Your task to perform on an android device: Search for seafood restaurants on Google Maps Image 0: 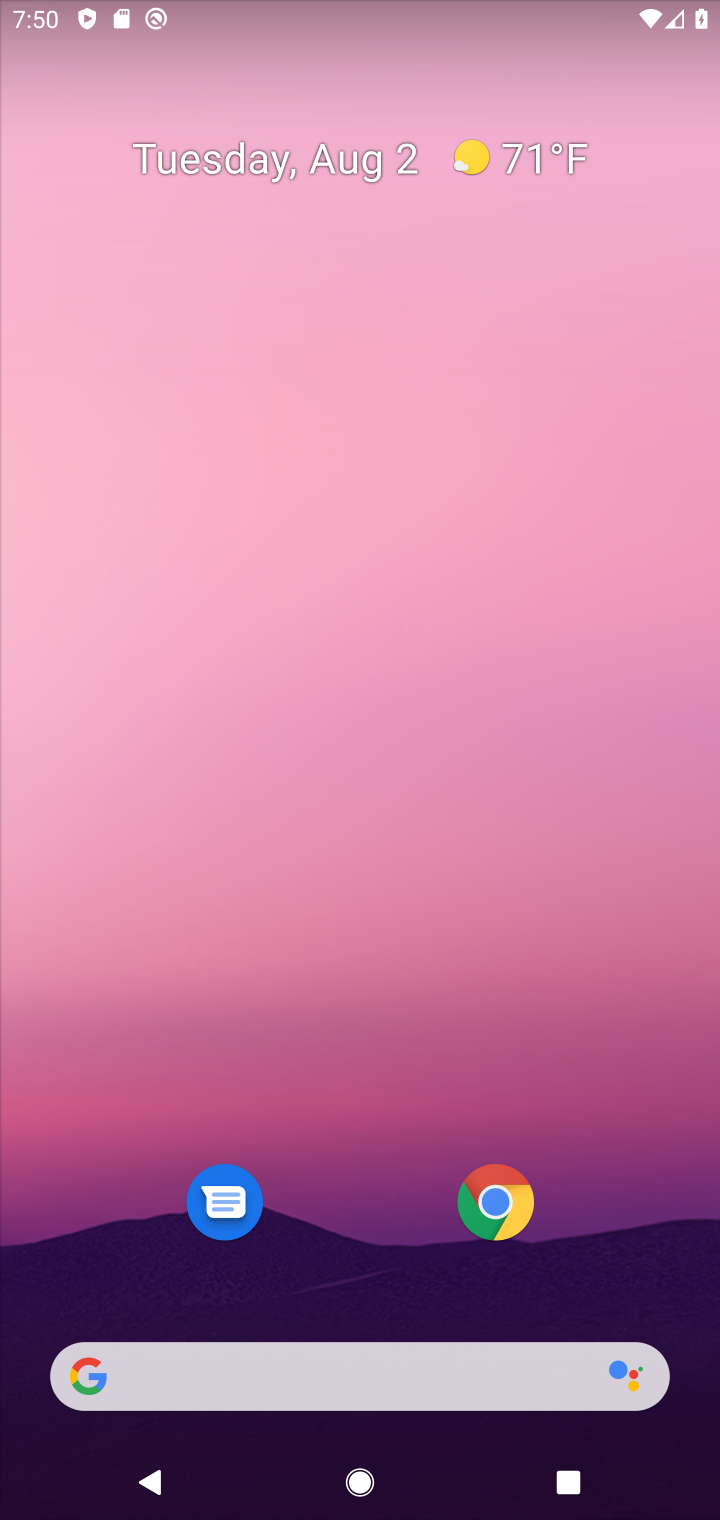
Step 0: drag from (379, 1179) to (379, 0)
Your task to perform on an android device: Search for seafood restaurants on Google Maps Image 1: 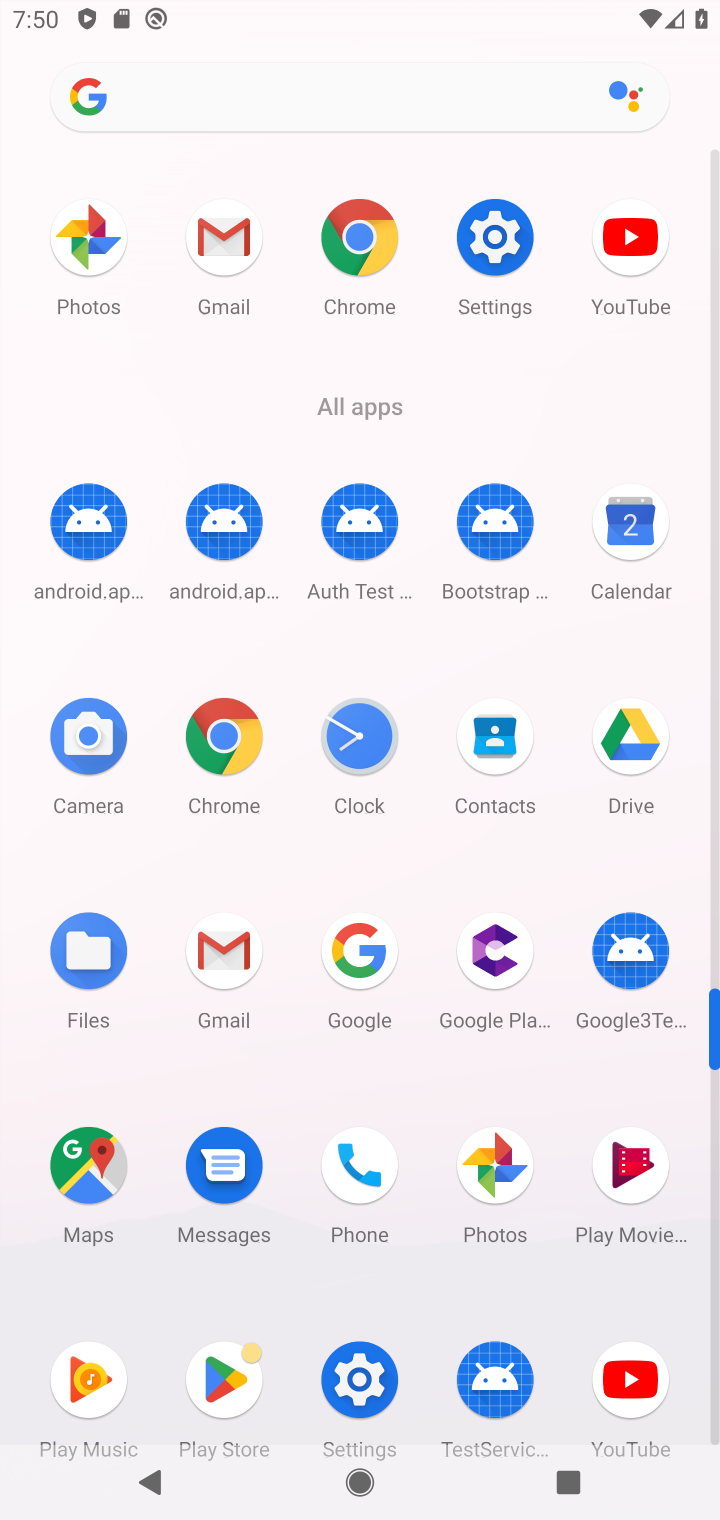
Step 1: click (85, 1171)
Your task to perform on an android device: Search for seafood restaurants on Google Maps Image 2: 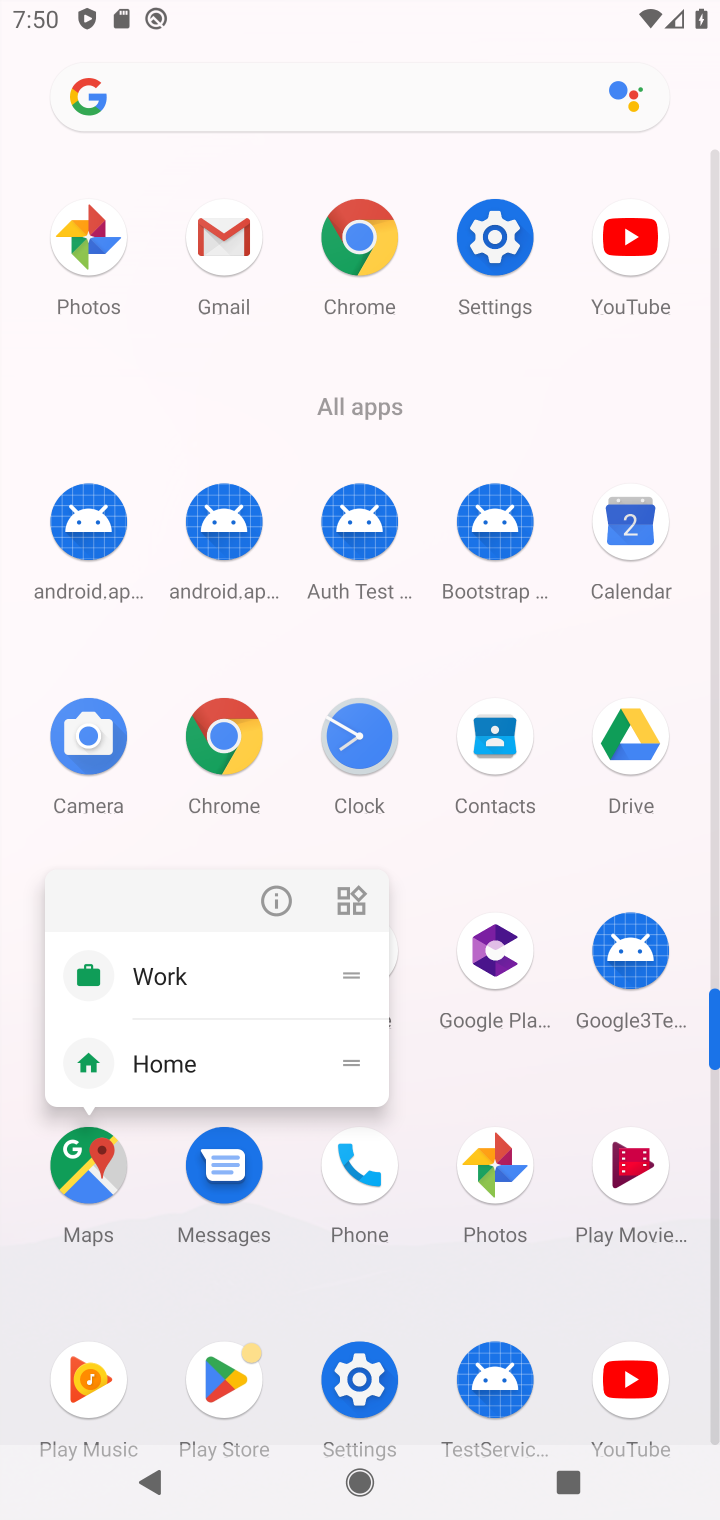
Step 2: click (79, 1181)
Your task to perform on an android device: Search for seafood restaurants on Google Maps Image 3: 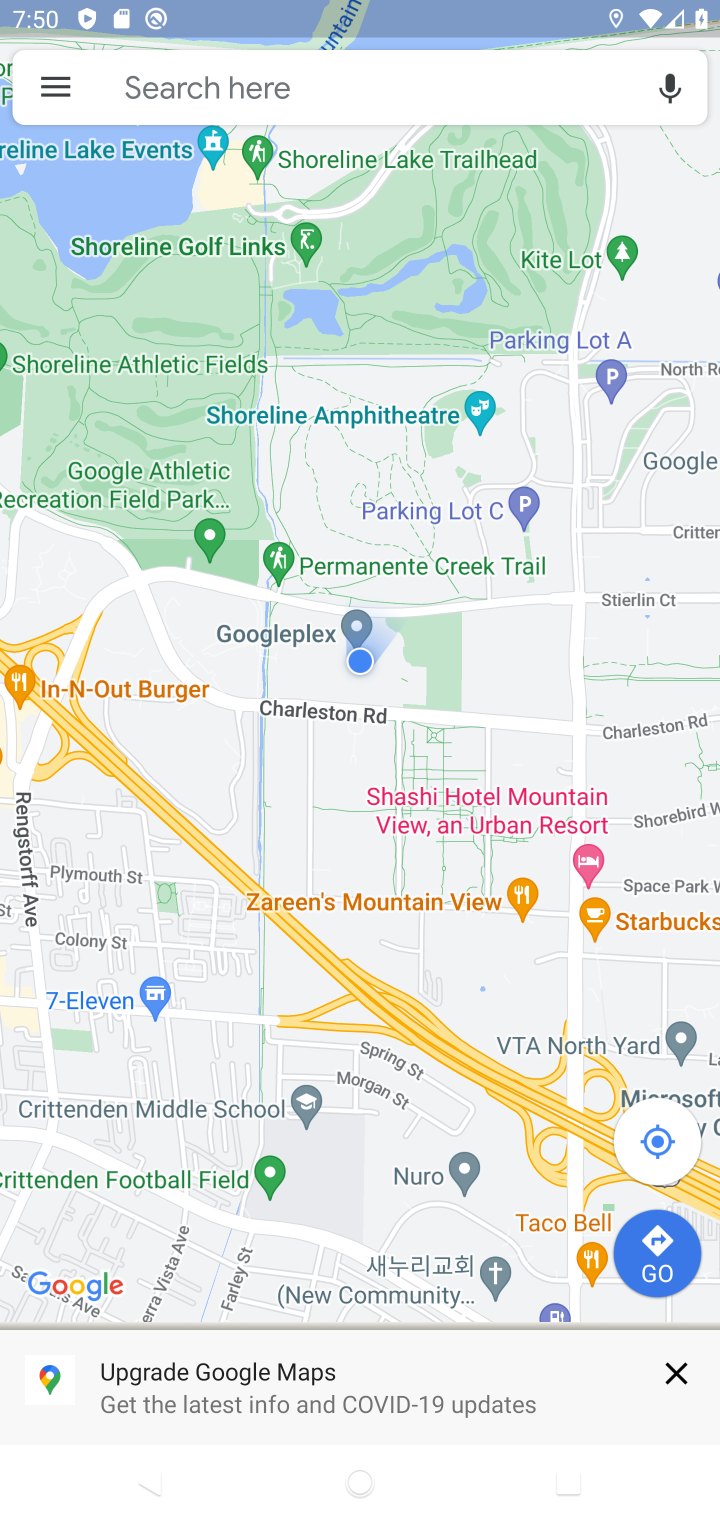
Step 3: click (208, 84)
Your task to perform on an android device: Search for seafood restaurants on Google Maps Image 4: 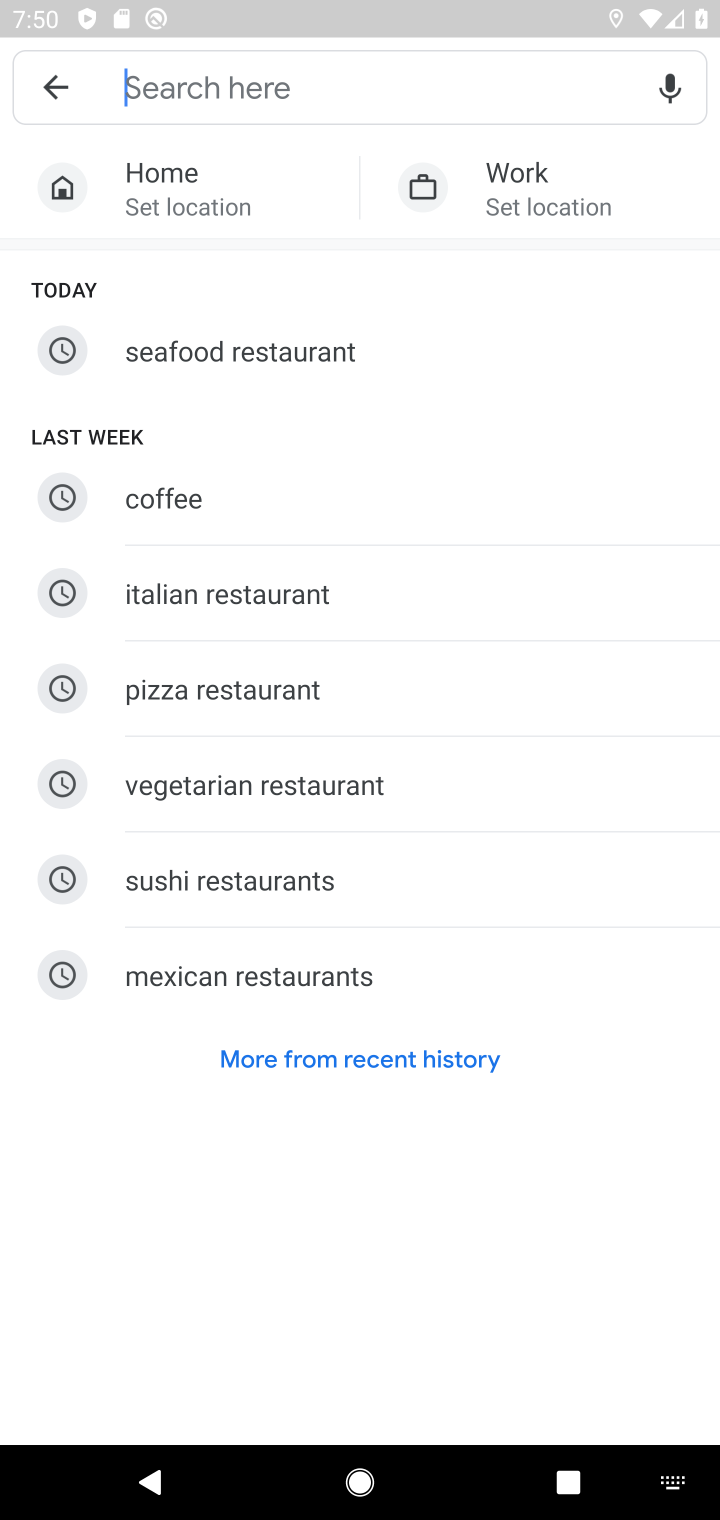
Step 4: type "seafood restaurants"
Your task to perform on an android device: Search for seafood restaurants on Google Maps Image 5: 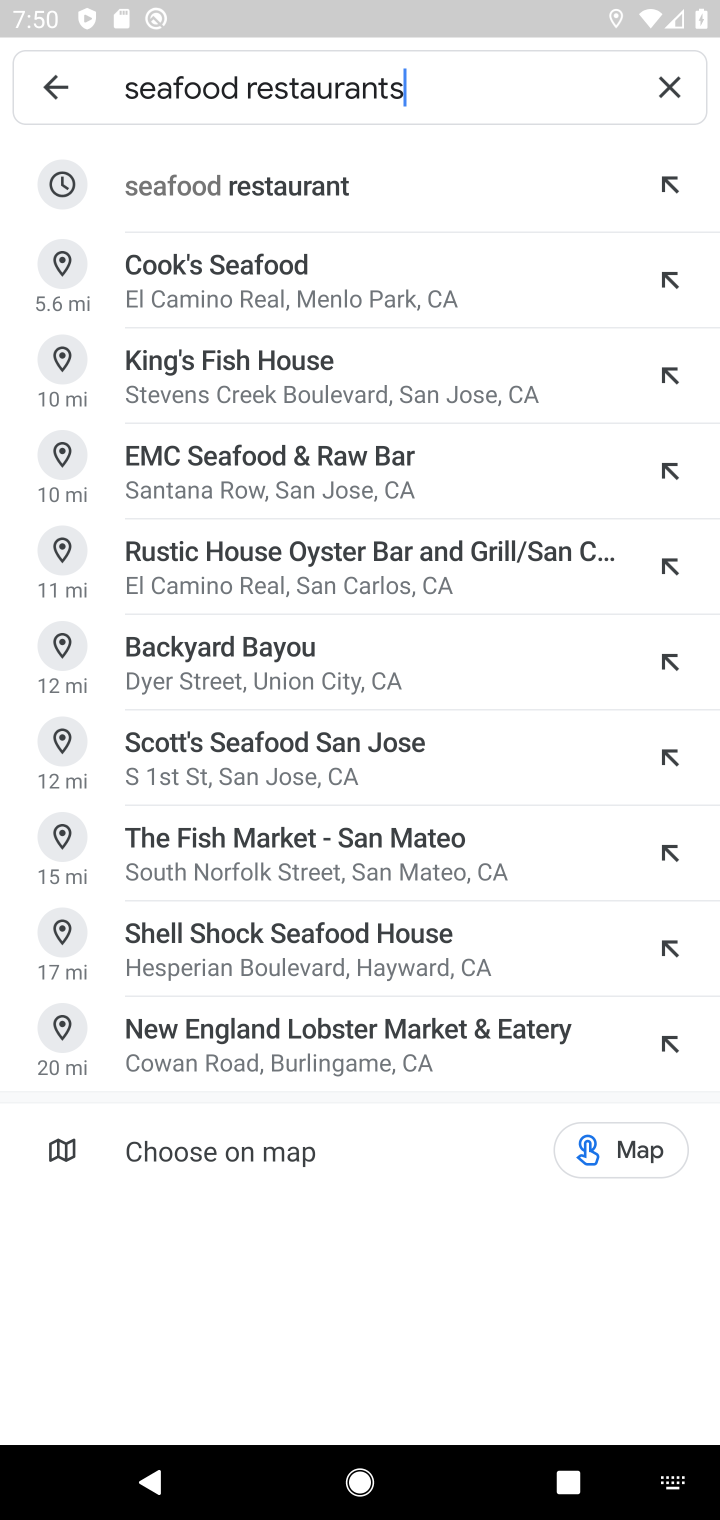
Step 5: click (222, 190)
Your task to perform on an android device: Search for seafood restaurants on Google Maps Image 6: 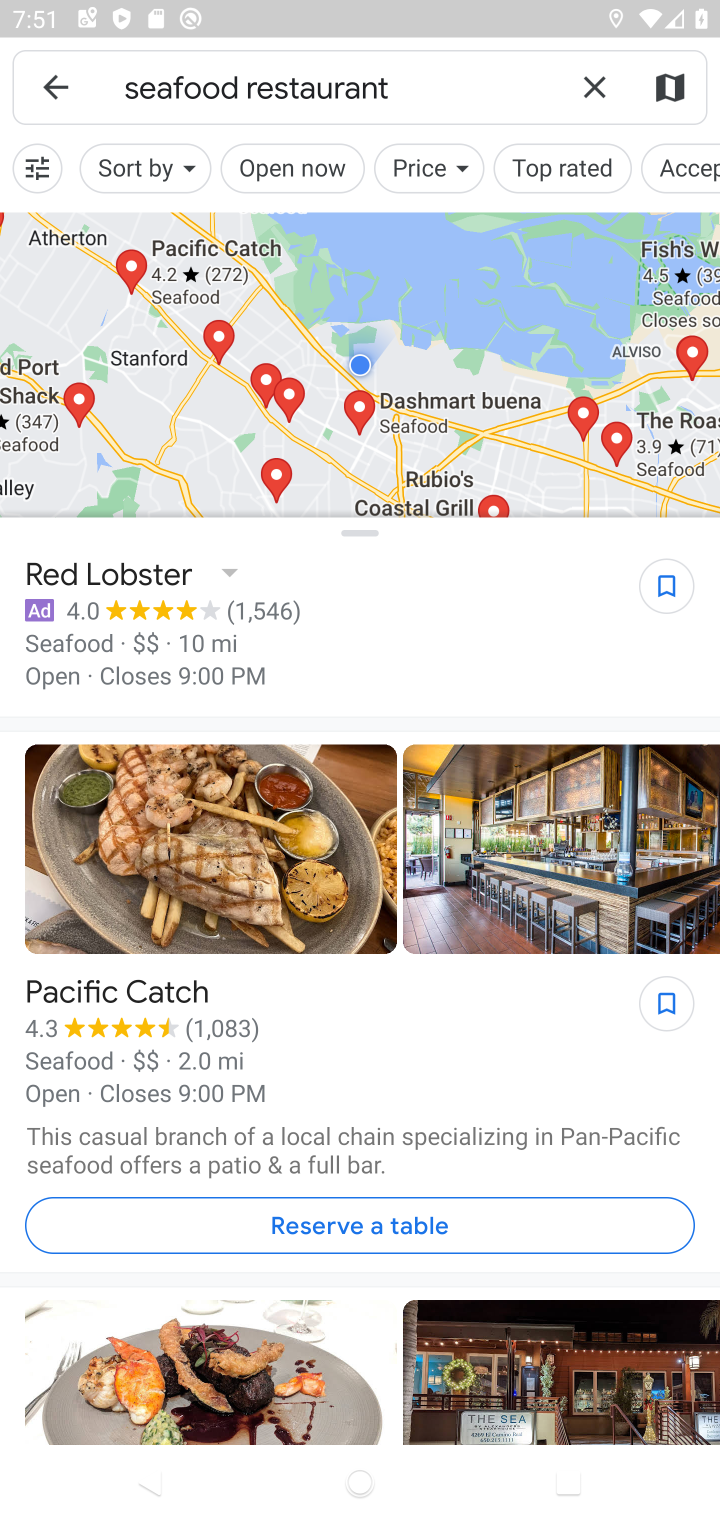
Step 6: task complete